Your task to perform on an android device: all mails in gmail Image 0: 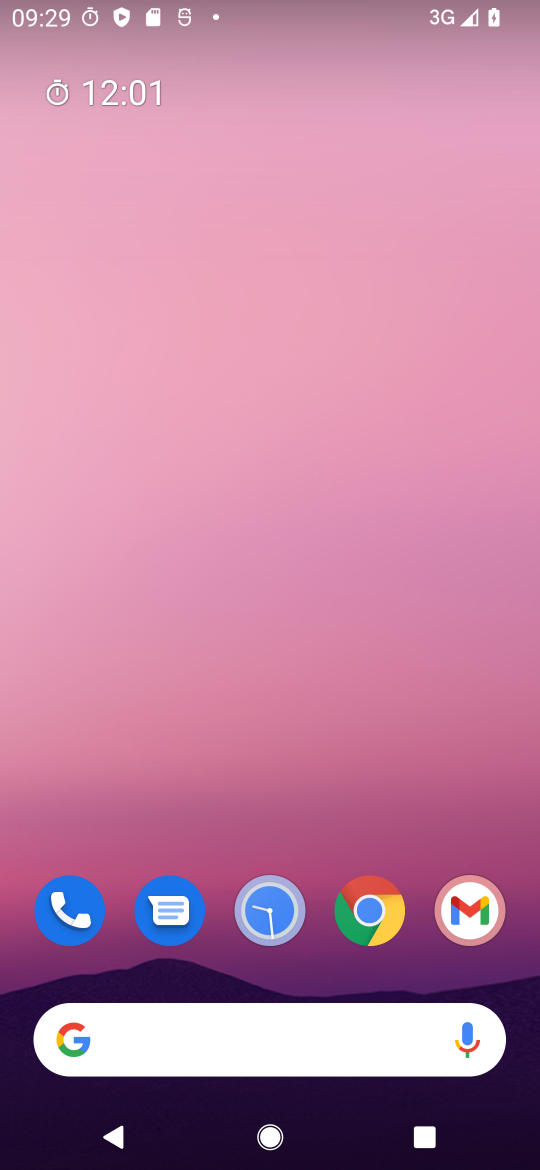
Step 0: click (455, 916)
Your task to perform on an android device: all mails in gmail Image 1: 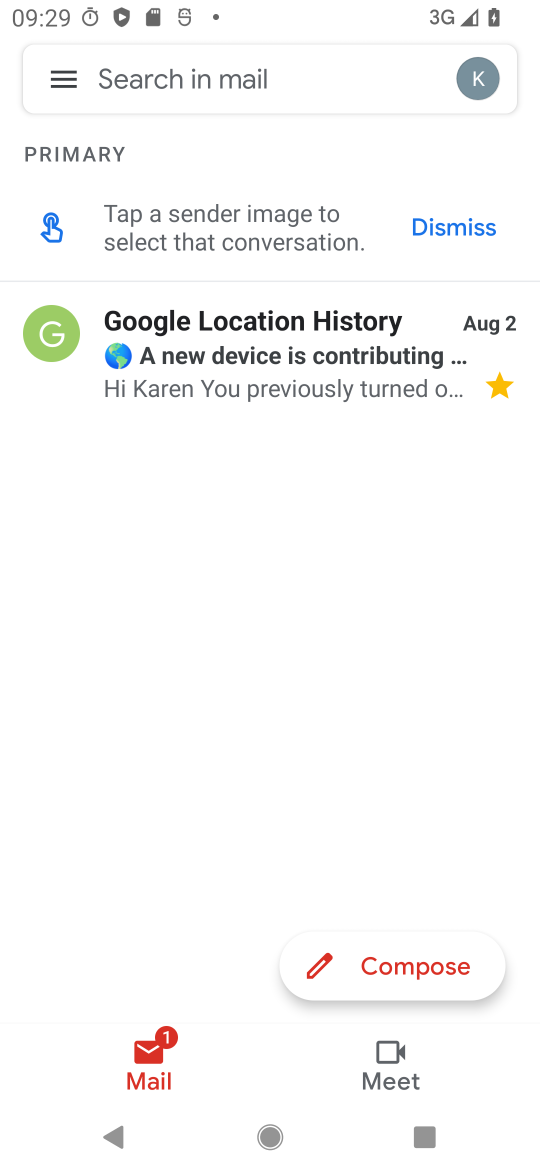
Step 1: click (60, 77)
Your task to perform on an android device: all mails in gmail Image 2: 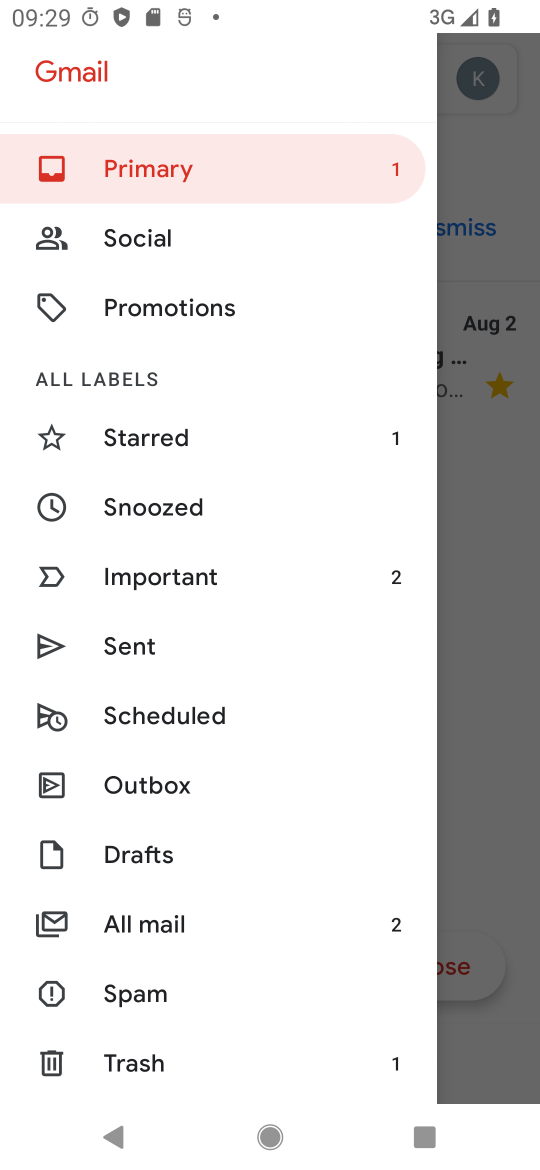
Step 2: click (222, 928)
Your task to perform on an android device: all mails in gmail Image 3: 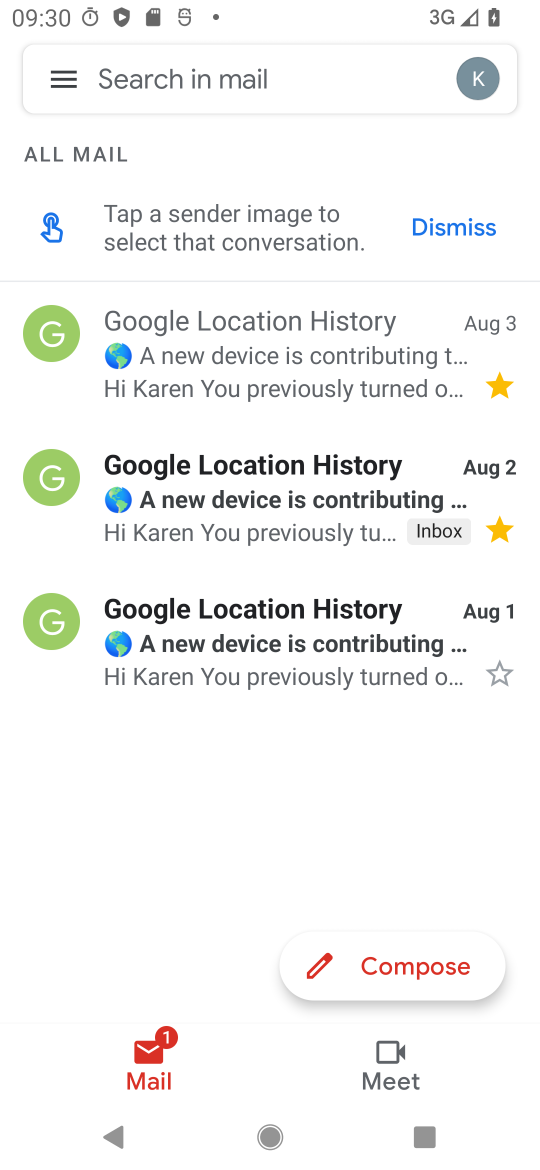
Step 3: task complete